Your task to perform on an android device: turn on priority inbox in the gmail app Image 0: 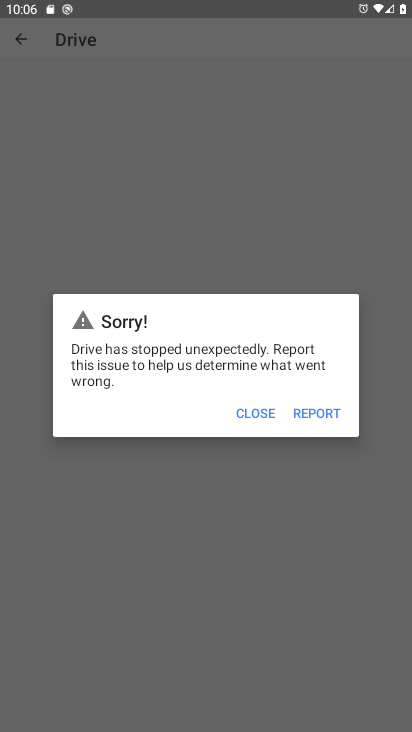
Step 0: press home button
Your task to perform on an android device: turn on priority inbox in the gmail app Image 1: 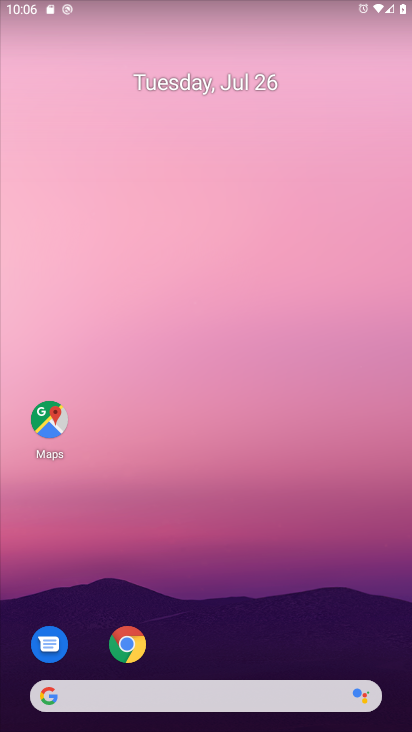
Step 1: drag from (191, 527) to (214, 84)
Your task to perform on an android device: turn on priority inbox in the gmail app Image 2: 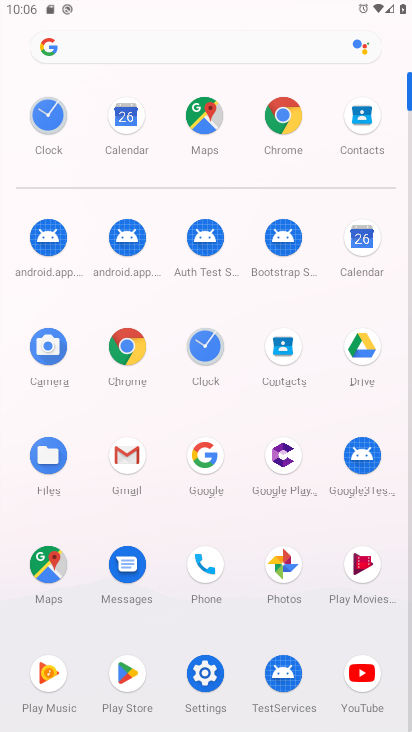
Step 2: click (122, 459)
Your task to perform on an android device: turn on priority inbox in the gmail app Image 3: 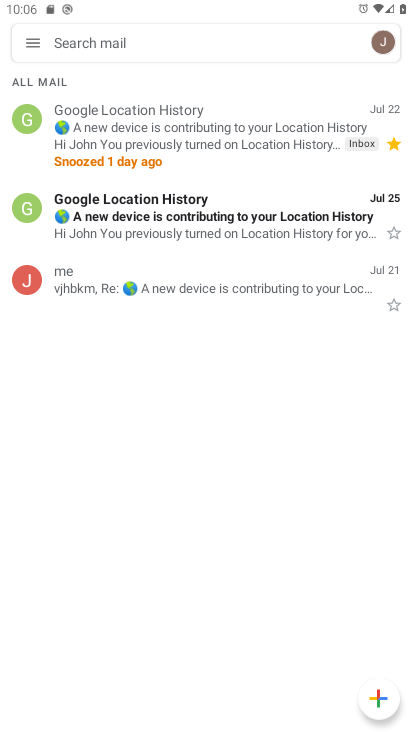
Step 3: click (29, 47)
Your task to perform on an android device: turn on priority inbox in the gmail app Image 4: 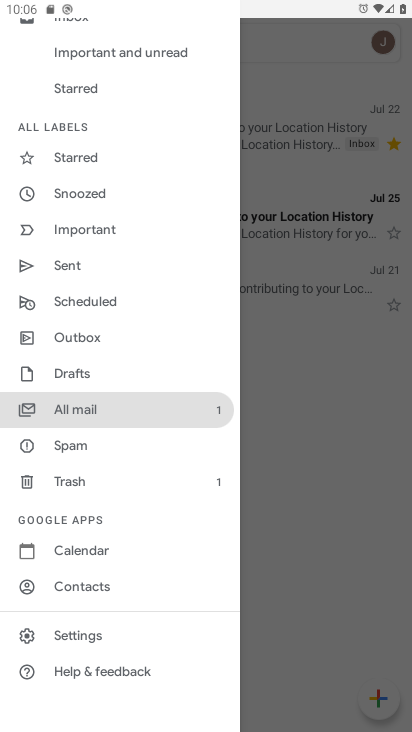
Step 4: click (80, 640)
Your task to perform on an android device: turn on priority inbox in the gmail app Image 5: 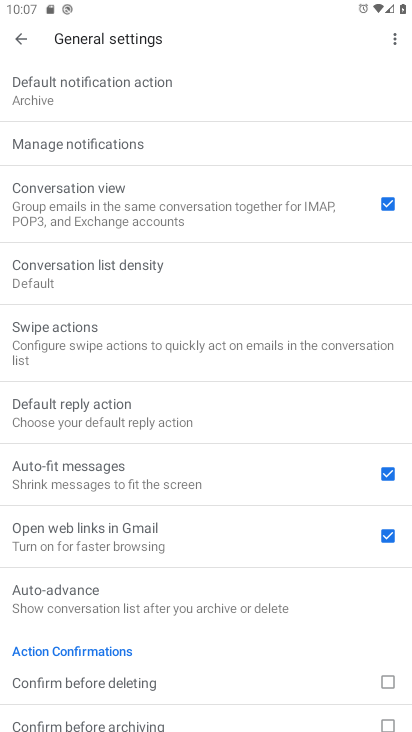
Step 5: click (21, 33)
Your task to perform on an android device: turn on priority inbox in the gmail app Image 6: 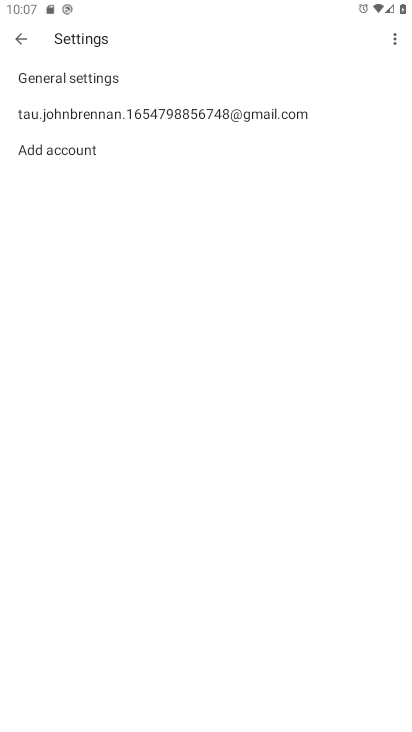
Step 6: click (142, 114)
Your task to perform on an android device: turn on priority inbox in the gmail app Image 7: 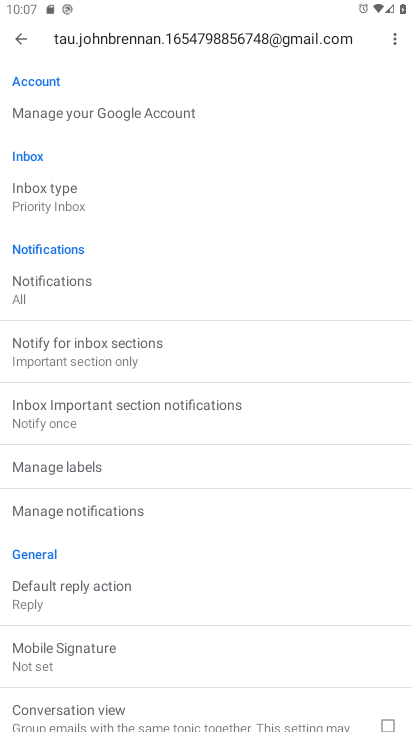
Step 7: click (79, 203)
Your task to perform on an android device: turn on priority inbox in the gmail app Image 8: 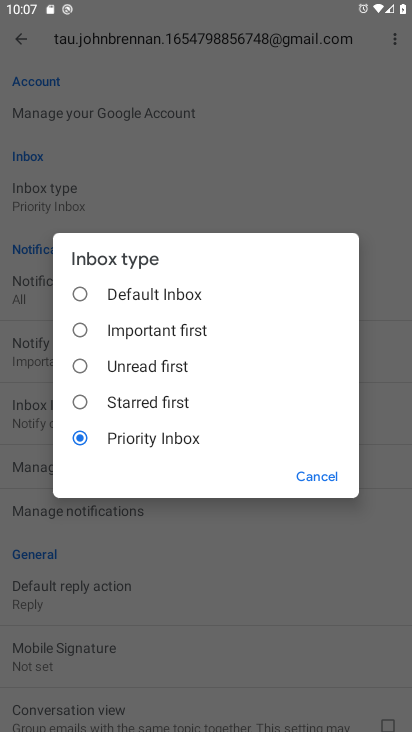
Step 8: task complete